Your task to perform on an android device: change the clock display to show seconds Image 0: 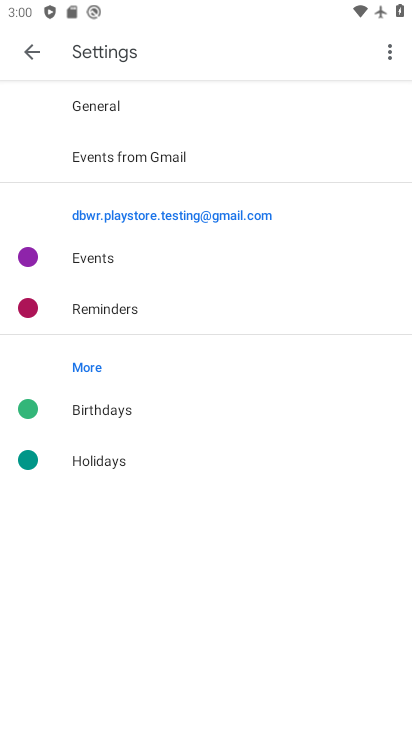
Step 0: press home button
Your task to perform on an android device: change the clock display to show seconds Image 1: 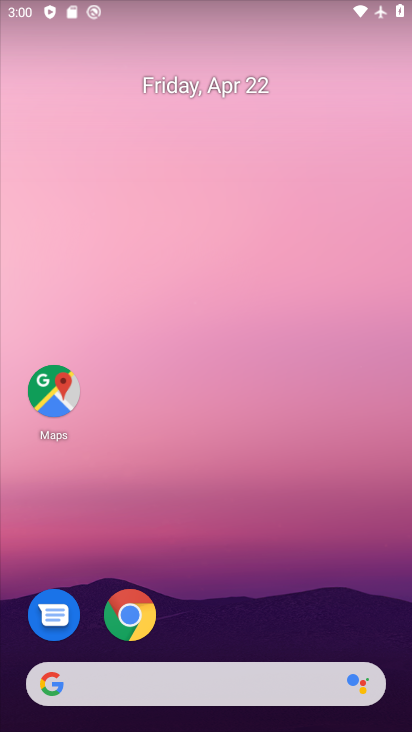
Step 1: drag from (258, 582) to (224, 206)
Your task to perform on an android device: change the clock display to show seconds Image 2: 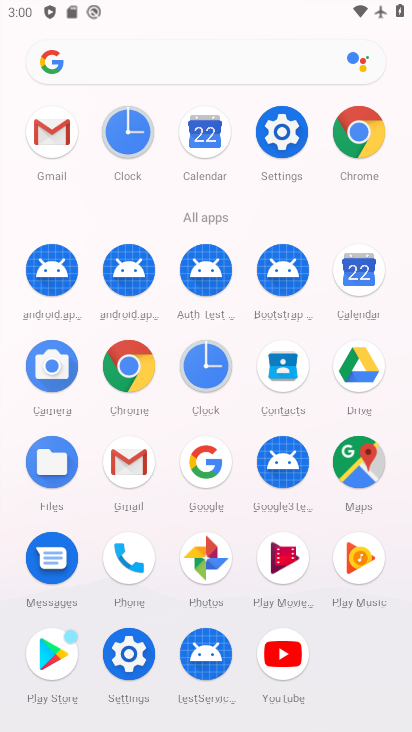
Step 2: click (144, 149)
Your task to perform on an android device: change the clock display to show seconds Image 3: 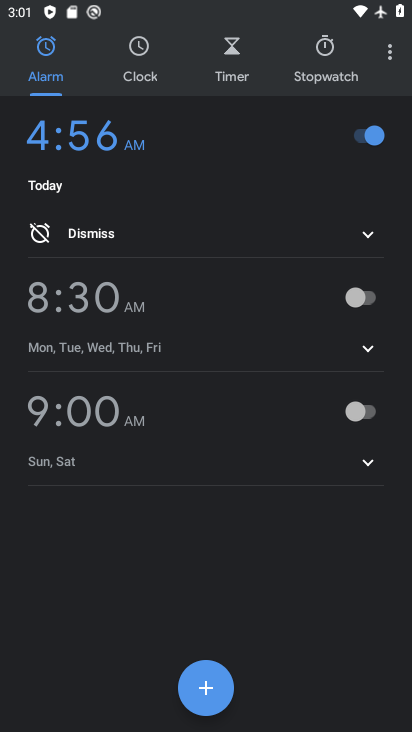
Step 3: click (391, 57)
Your task to perform on an android device: change the clock display to show seconds Image 4: 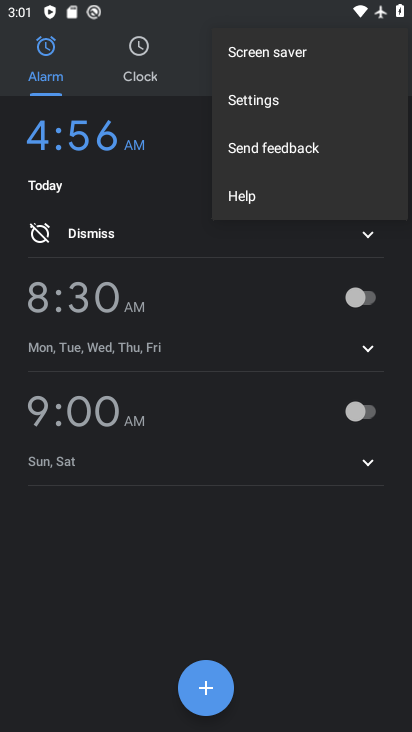
Step 4: click (352, 102)
Your task to perform on an android device: change the clock display to show seconds Image 5: 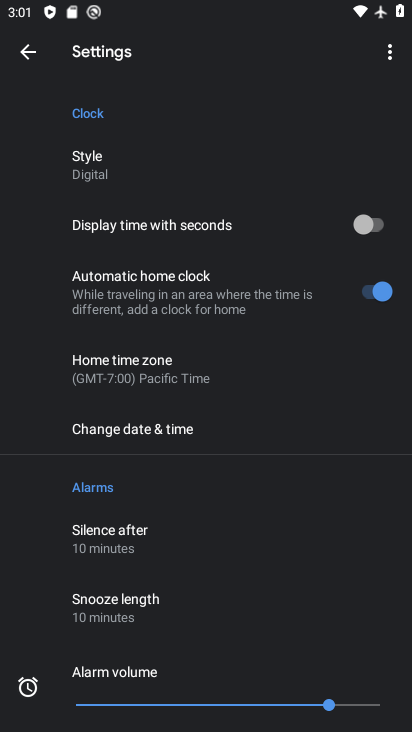
Step 5: click (377, 225)
Your task to perform on an android device: change the clock display to show seconds Image 6: 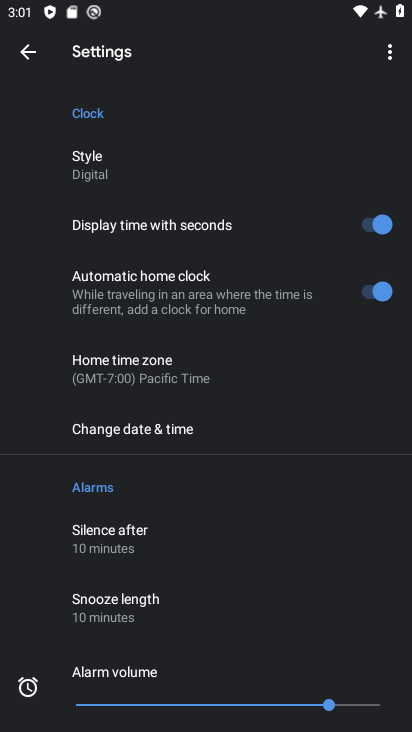
Step 6: task complete